Your task to perform on an android device: What's the weather going to be this weekend? Image 0: 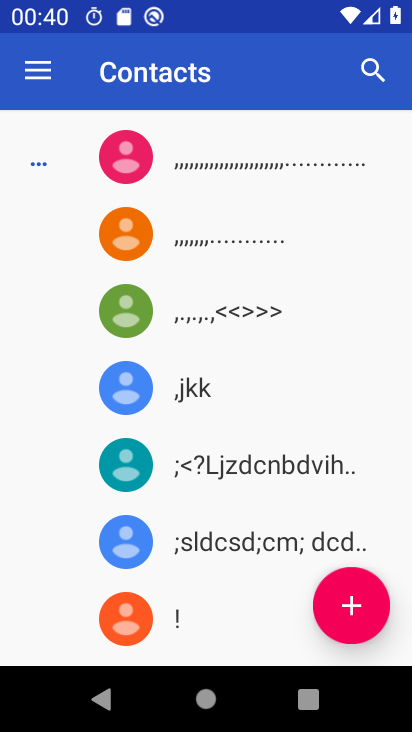
Step 0: press home button
Your task to perform on an android device: What's the weather going to be this weekend? Image 1: 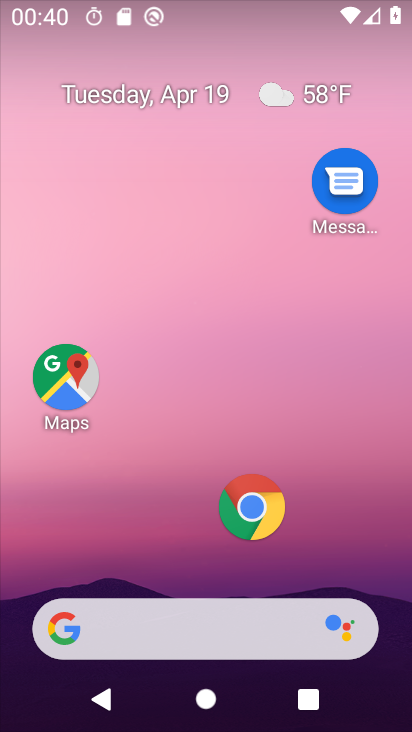
Step 1: click (318, 96)
Your task to perform on an android device: What's the weather going to be this weekend? Image 2: 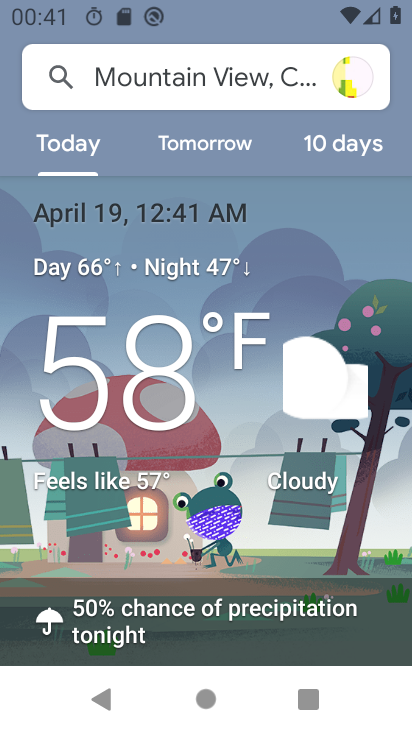
Step 2: press home button
Your task to perform on an android device: What's the weather going to be this weekend? Image 3: 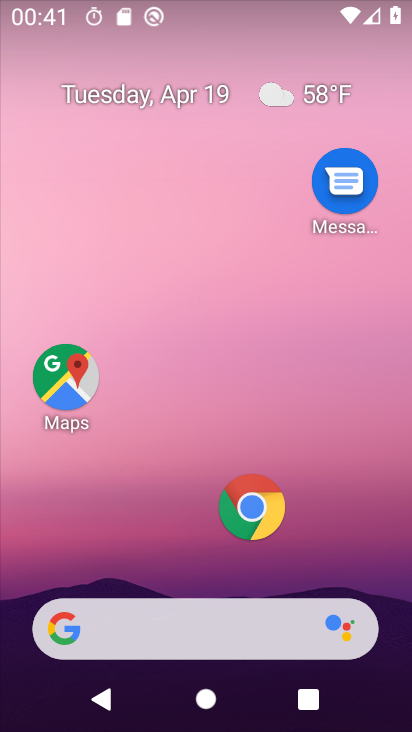
Step 3: click (338, 101)
Your task to perform on an android device: What's the weather going to be this weekend? Image 4: 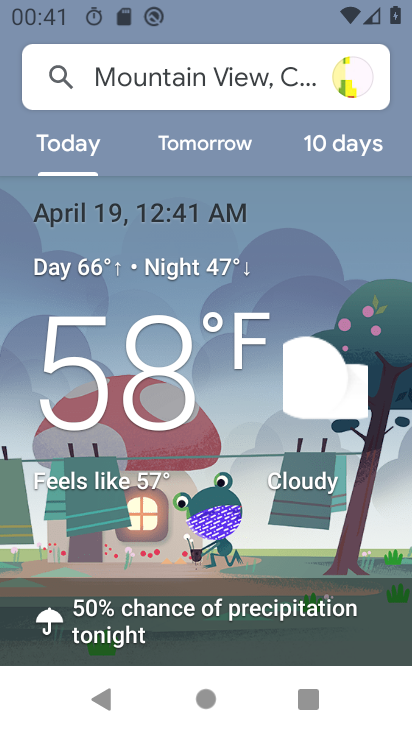
Step 4: click (340, 145)
Your task to perform on an android device: What's the weather going to be this weekend? Image 5: 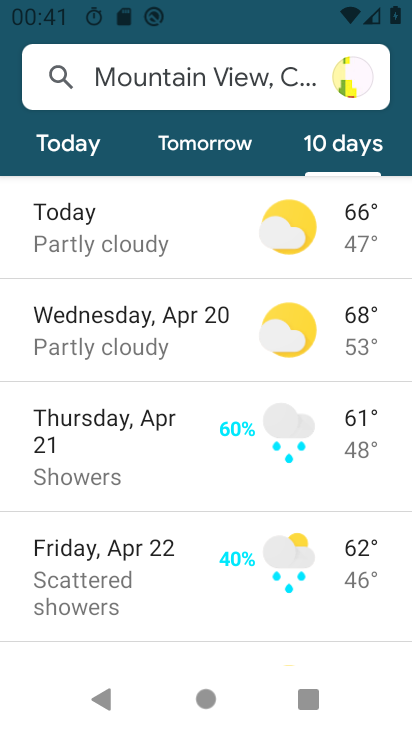
Step 5: task complete